Your task to perform on an android device: Search for pizza restaurants on Maps Image 0: 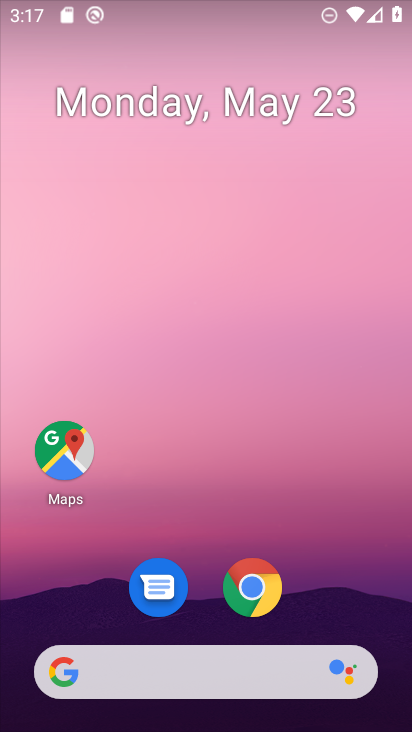
Step 0: click (74, 445)
Your task to perform on an android device: Search for pizza restaurants on Maps Image 1: 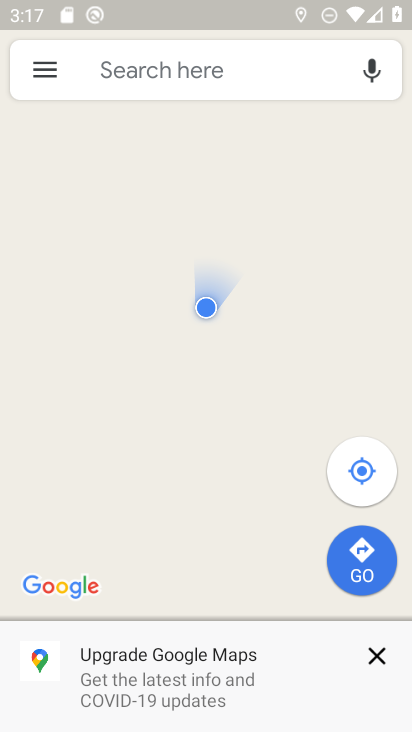
Step 1: click (160, 87)
Your task to perform on an android device: Search for pizza restaurants on Maps Image 2: 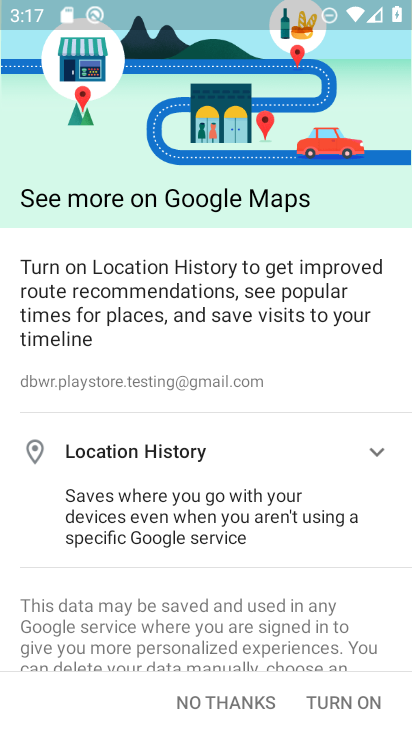
Step 2: type "Pizza rest"
Your task to perform on an android device: Search for pizza restaurants on Maps Image 3: 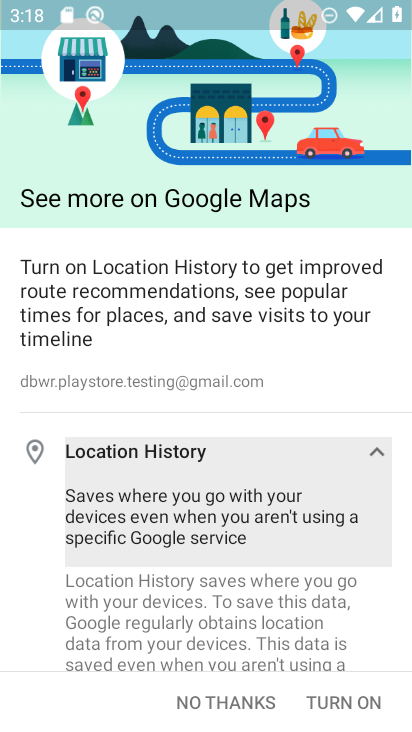
Step 3: click (245, 691)
Your task to perform on an android device: Search for pizza restaurants on Maps Image 4: 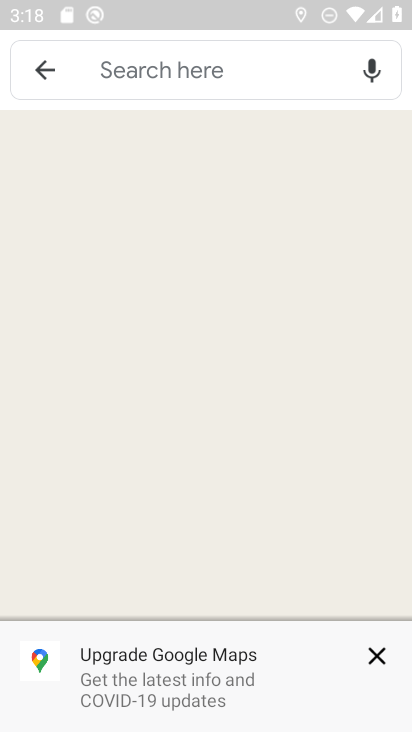
Step 4: click (204, 77)
Your task to perform on an android device: Search for pizza restaurants on Maps Image 5: 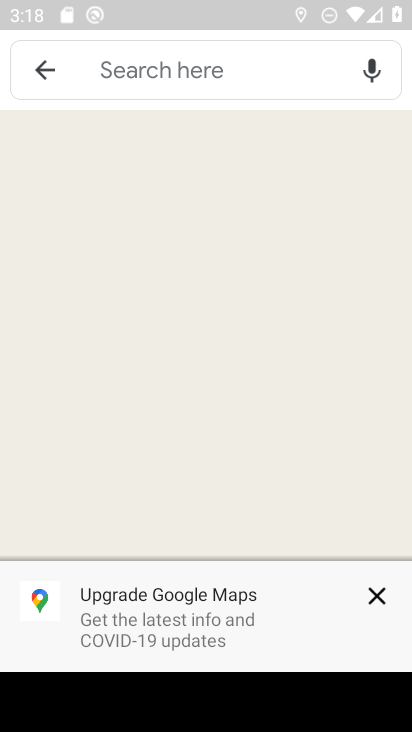
Step 5: type "Pizza restaurants"
Your task to perform on an android device: Search for pizza restaurants on Maps Image 6: 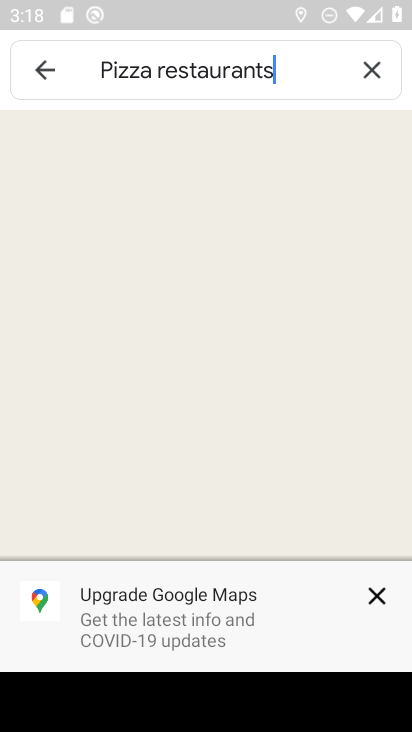
Step 6: click (378, 596)
Your task to perform on an android device: Search for pizza restaurants on Maps Image 7: 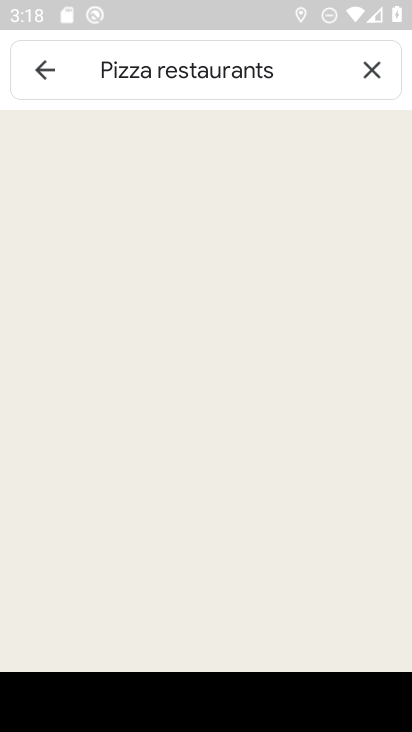
Step 7: drag from (282, 206) to (295, 557)
Your task to perform on an android device: Search for pizza restaurants on Maps Image 8: 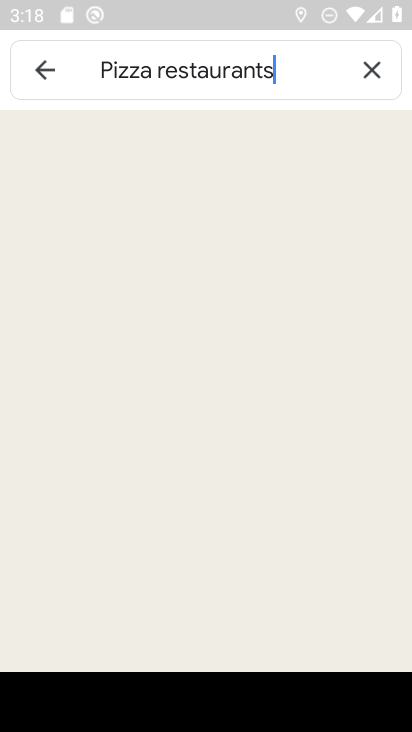
Step 8: click (270, 71)
Your task to perform on an android device: Search for pizza restaurants on Maps Image 9: 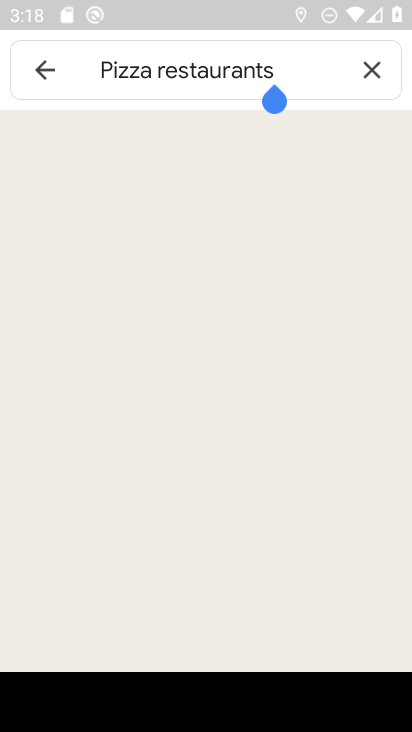
Step 9: click (270, 76)
Your task to perform on an android device: Search for pizza restaurants on Maps Image 10: 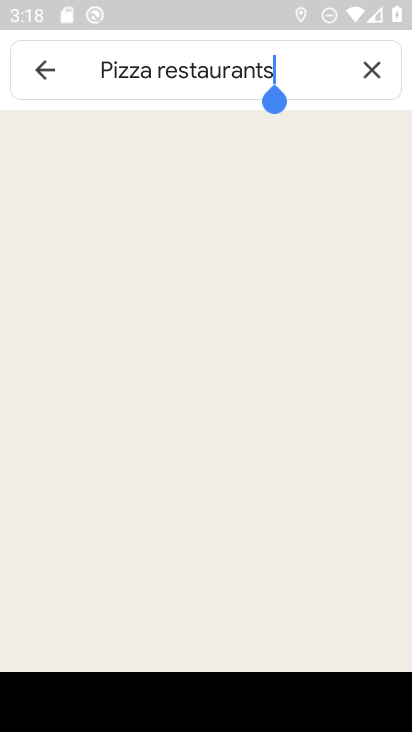
Step 10: click (236, 78)
Your task to perform on an android device: Search for pizza restaurants on Maps Image 11: 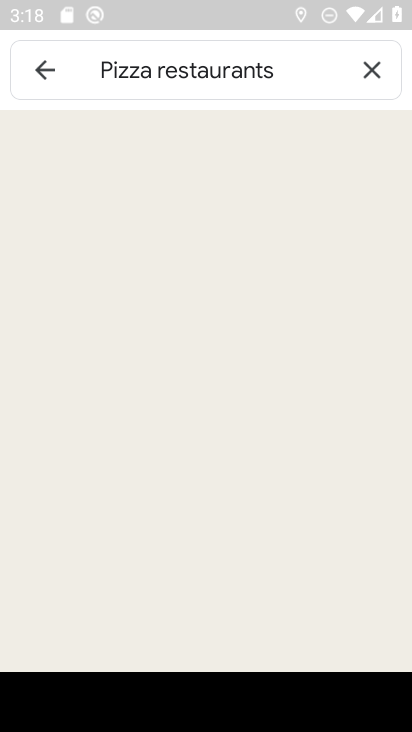
Step 11: task complete